Your task to perform on an android device: toggle show notifications on the lock screen Image 0: 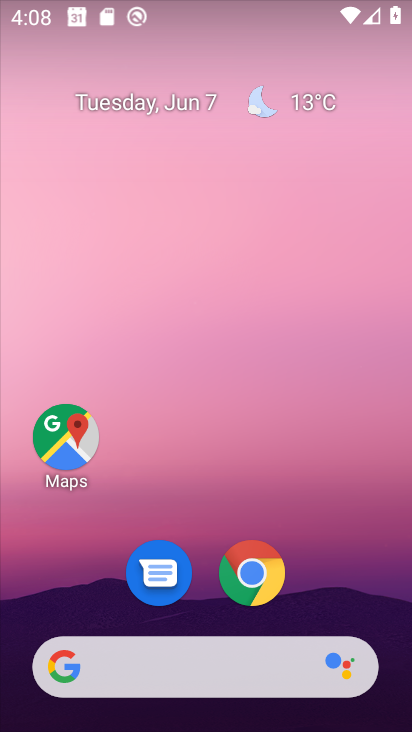
Step 0: drag from (343, 614) to (350, 5)
Your task to perform on an android device: toggle show notifications on the lock screen Image 1: 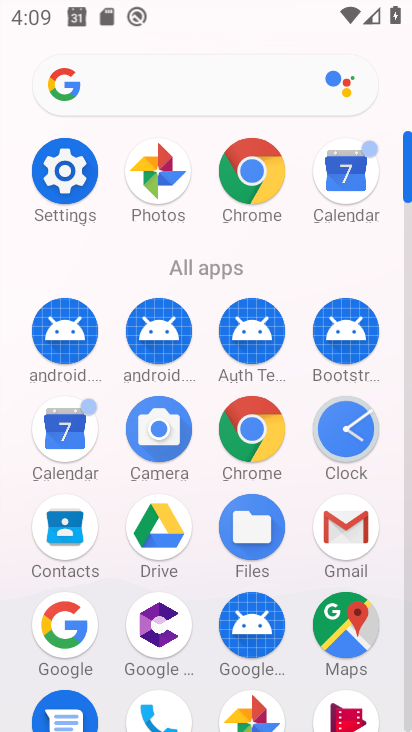
Step 1: drag from (195, 590) to (230, 666)
Your task to perform on an android device: toggle show notifications on the lock screen Image 2: 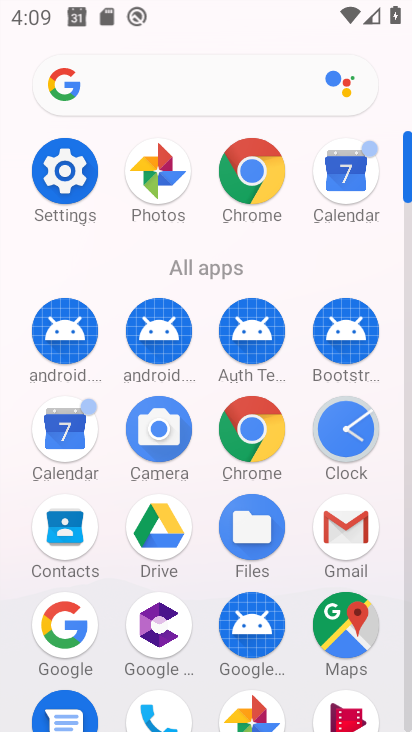
Step 2: click (90, 185)
Your task to perform on an android device: toggle show notifications on the lock screen Image 3: 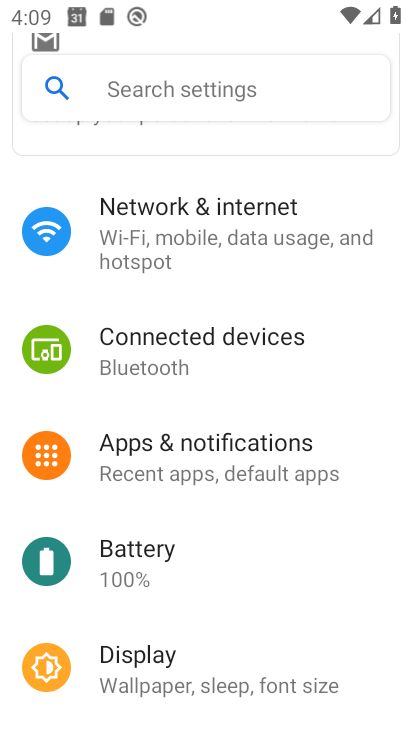
Step 3: click (174, 484)
Your task to perform on an android device: toggle show notifications on the lock screen Image 4: 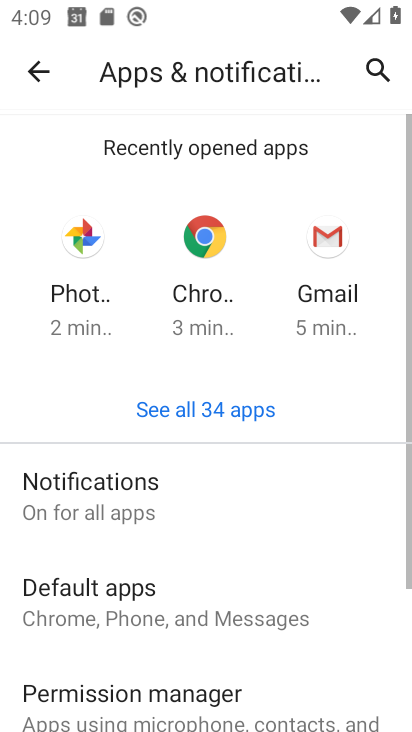
Step 4: click (167, 503)
Your task to perform on an android device: toggle show notifications on the lock screen Image 5: 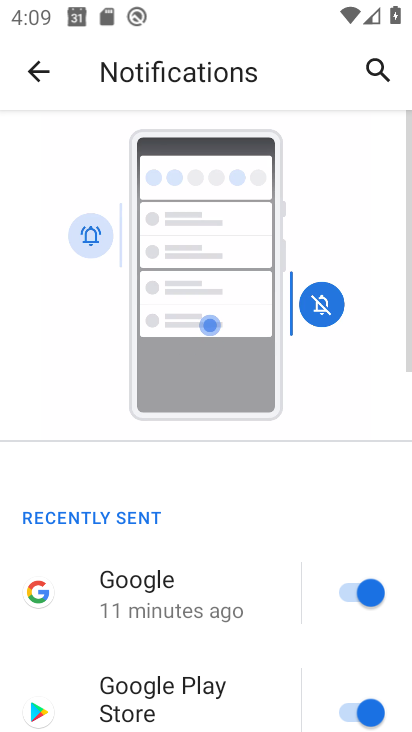
Step 5: drag from (167, 509) to (212, 103)
Your task to perform on an android device: toggle show notifications on the lock screen Image 6: 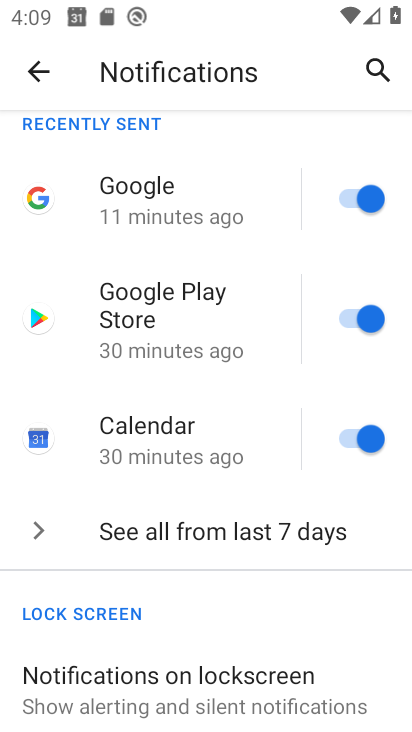
Step 6: drag from (171, 579) to (230, 319)
Your task to perform on an android device: toggle show notifications on the lock screen Image 7: 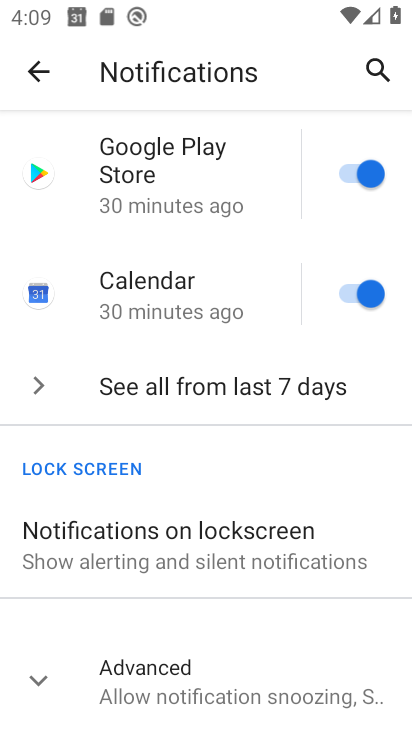
Step 7: click (204, 554)
Your task to perform on an android device: toggle show notifications on the lock screen Image 8: 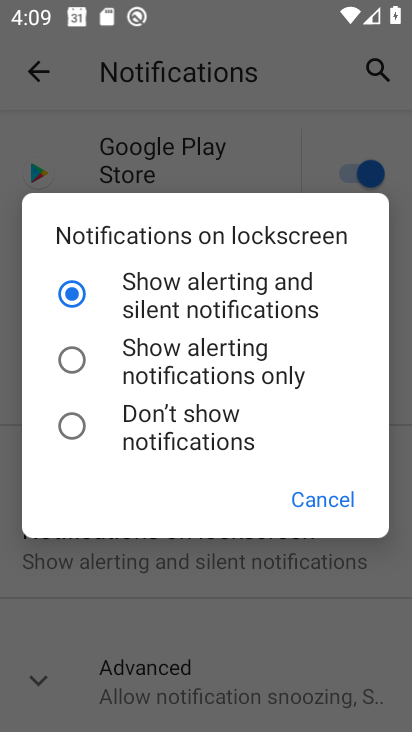
Step 8: click (210, 357)
Your task to perform on an android device: toggle show notifications on the lock screen Image 9: 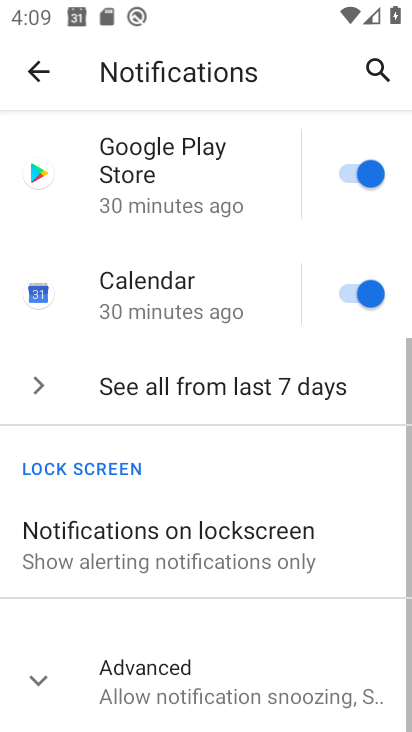
Step 9: task complete